Your task to perform on an android device: Open Chrome and go to the settings page Image 0: 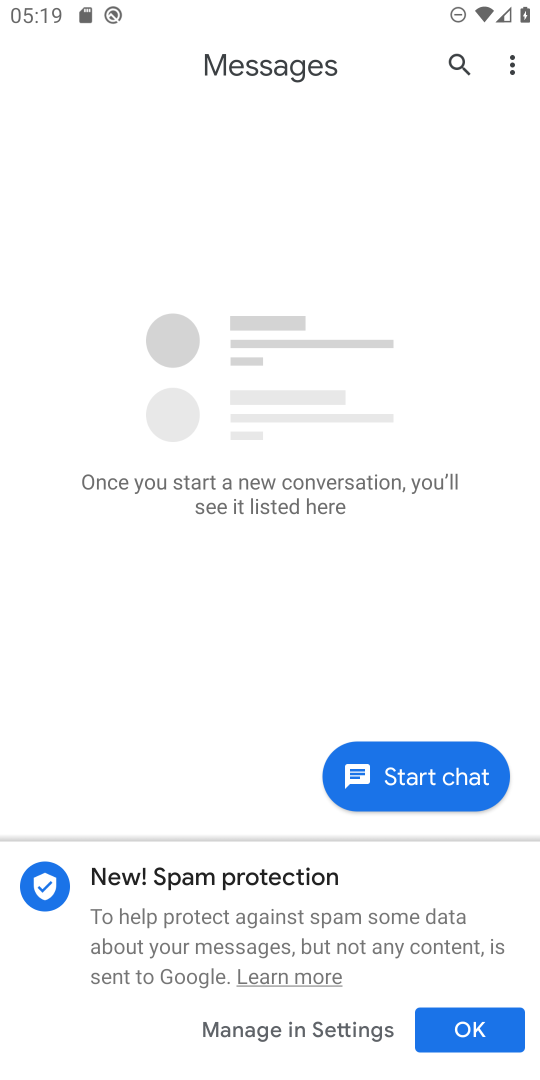
Step 0: press home button
Your task to perform on an android device: Open Chrome and go to the settings page Image 1: 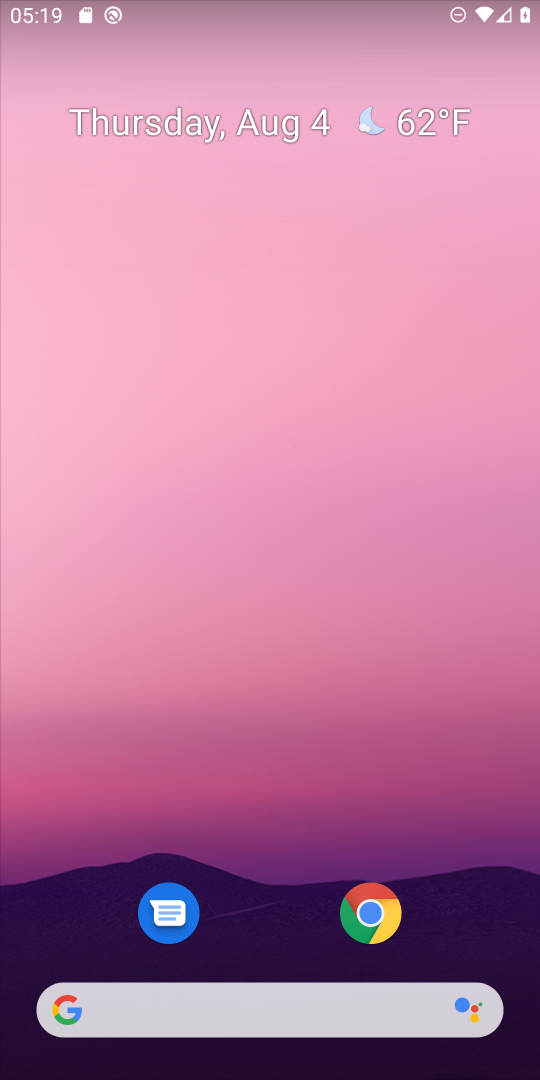
Step 1: drag from (296, 1014) to (442, 5)
Your task to perform on an android device: Open Chrome and go to the settings page Image 2: 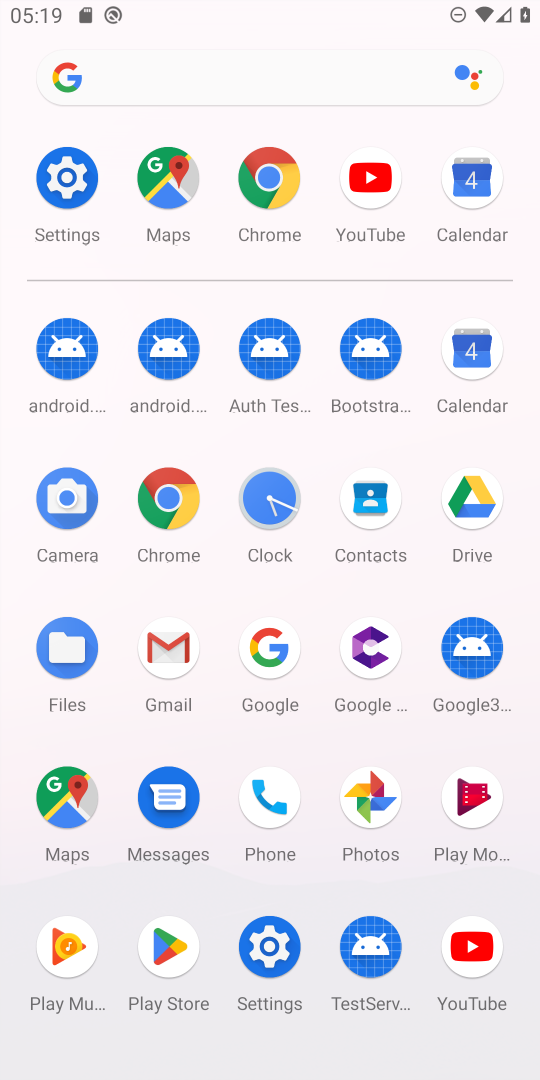
Step 2: click (167, 500)
Your task to perform on an android device: Open Chrome and go to the settings page Image 3: 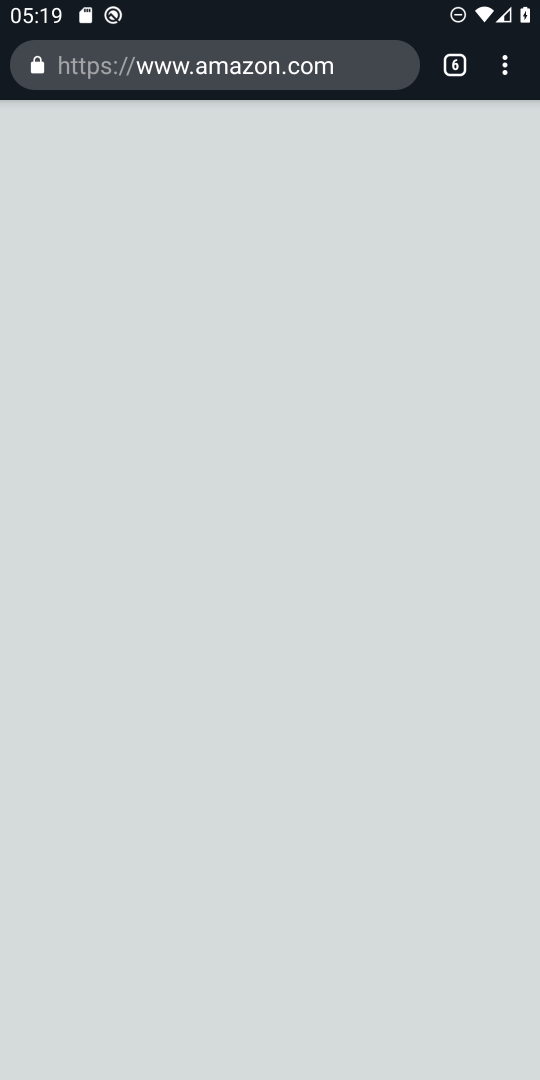
Step 3: task complete